Your task to perform on an android device: Open location settings Image 0: 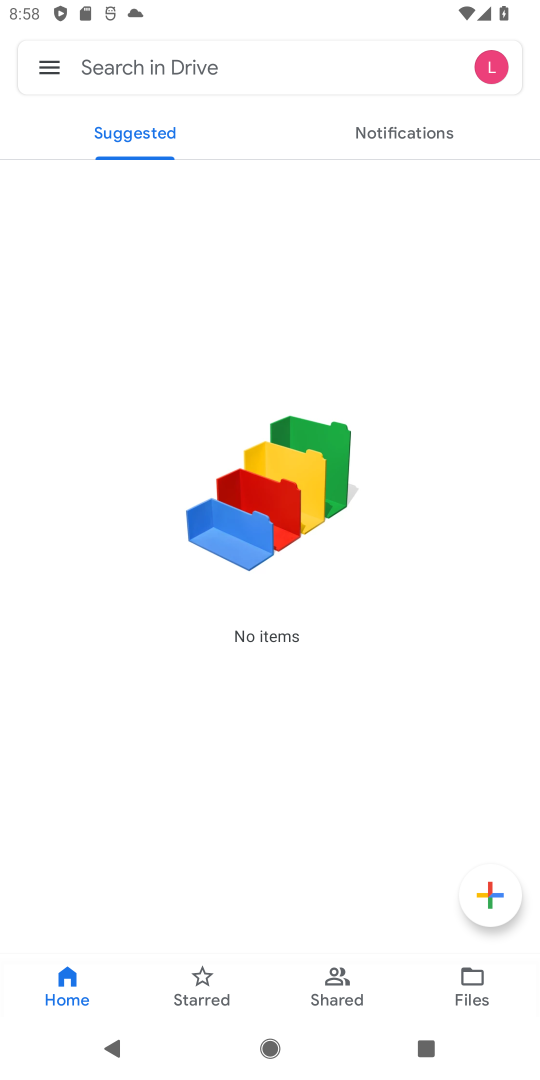
Step 0: press back button
Your task to perform on an android device: Open location settings Image 1: 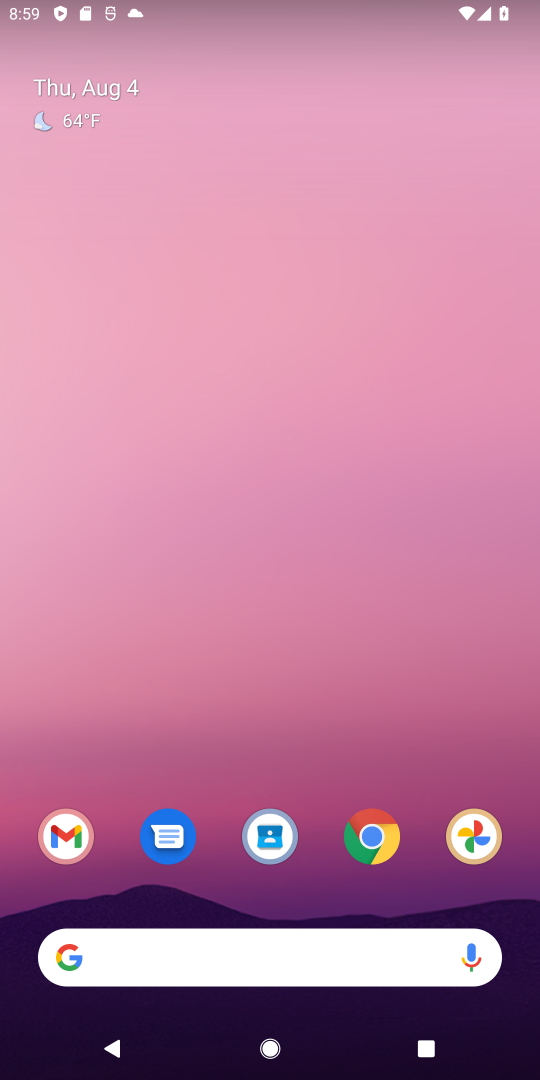
Step 1: drag from (302, 742) to (331, 15)
Your task to perform on an android device: Open location settings Image 2: 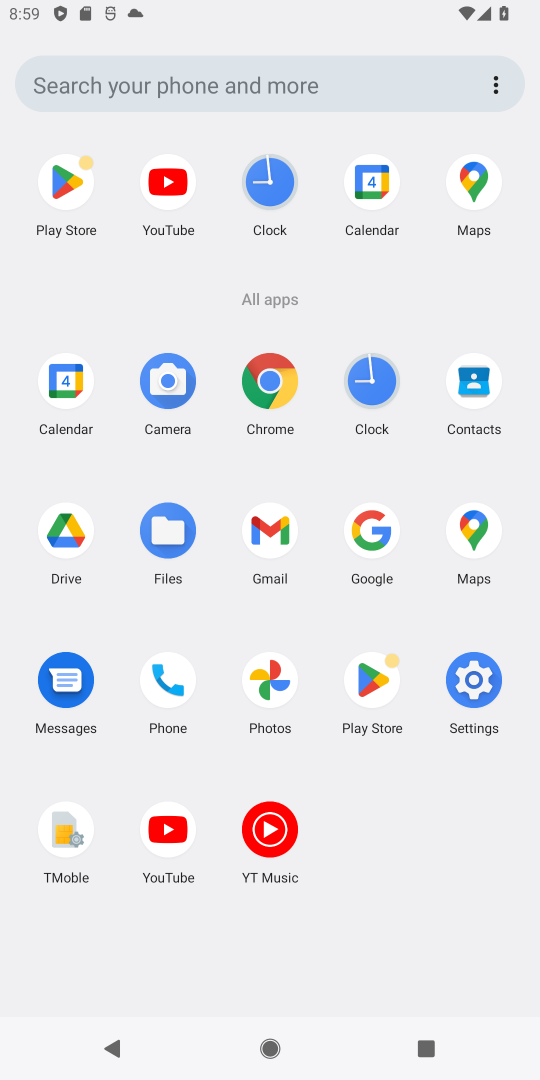
Step 2: click (462, 693)
Your task to perform on an android device: Open location settings Image 3: 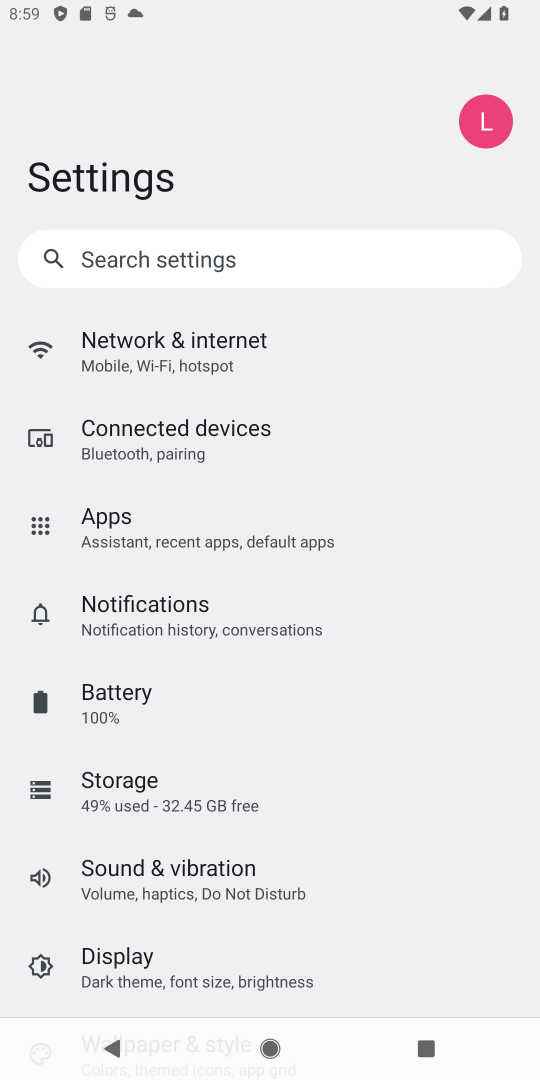
Step 3: drag from (197, 920) to (364, 106)
Your task to perform on an android device: Open location settings Image 4: 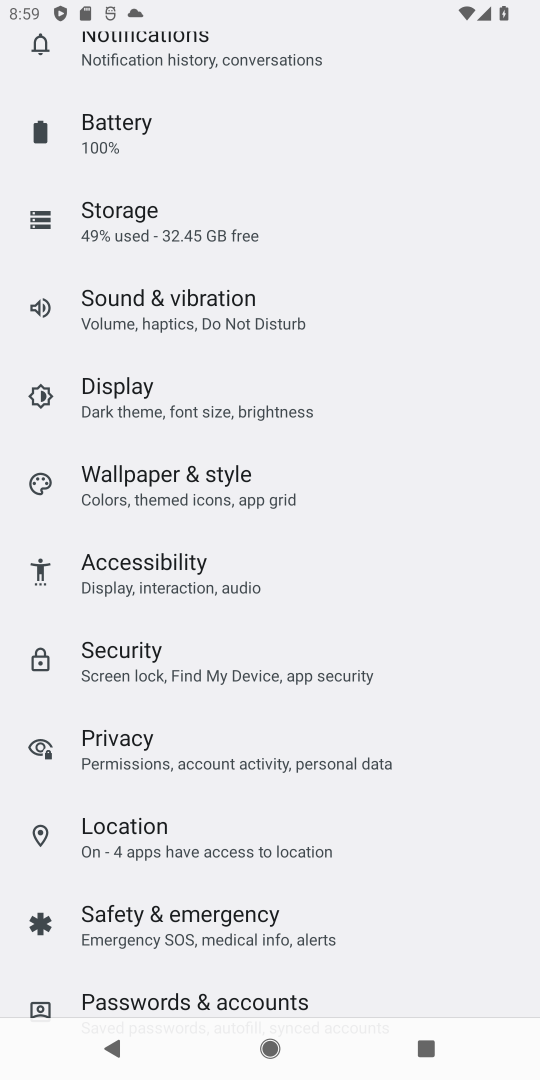
Step 4: click (134, 834)
Your task to perform on an android device: Open location settings Image 5: 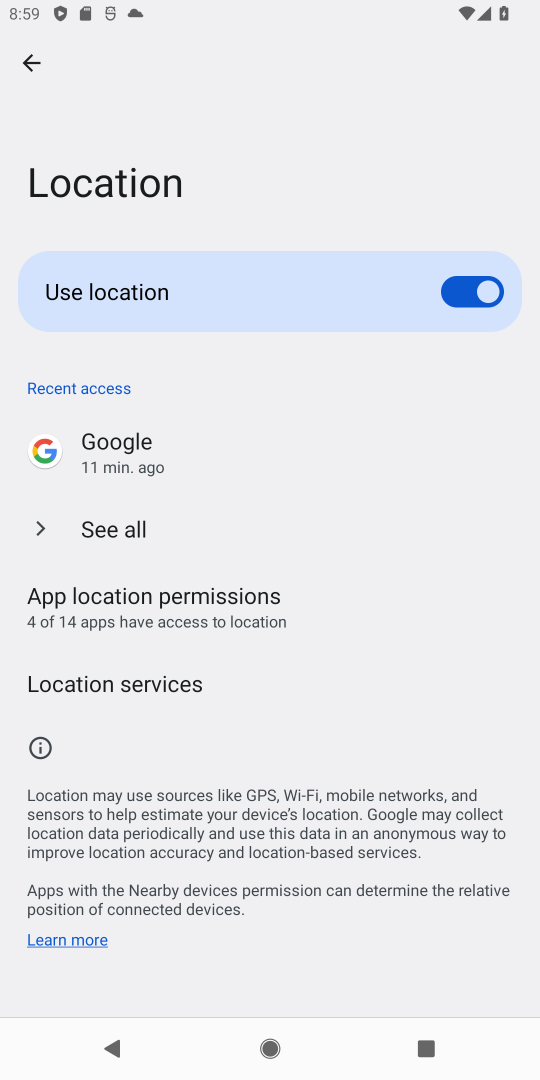
Step 5: task complete